Your task to perform on an android device: Show me the alarms in the clock app Image 0: 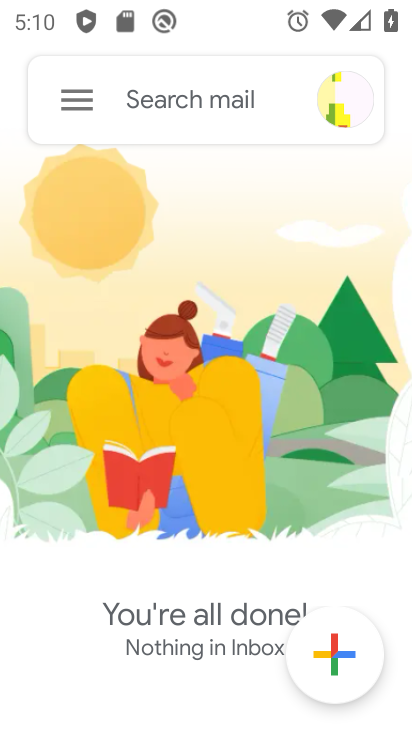
Step 0: press home button
Your task to perform on an android device: Show me the alarms in the clock app Image 1: 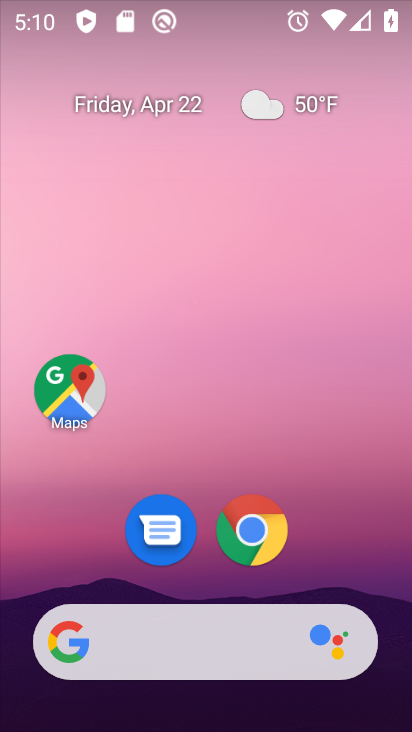
Step 1: drag from (290, 560) to (312, 178)
Your task to perform on an android device: Show me the alarms in the clock app Image 2: 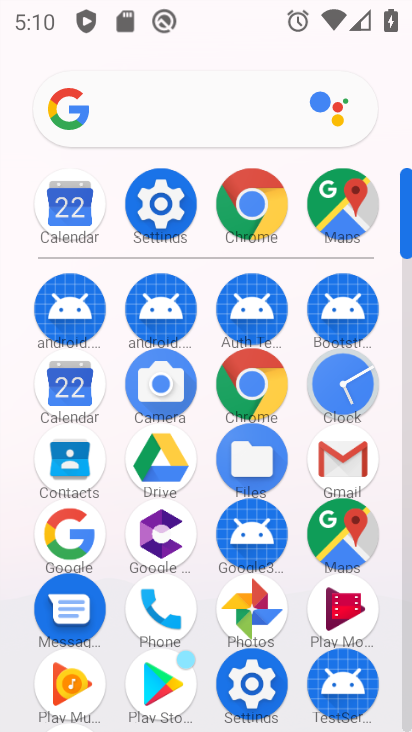
Step 2: click (331, 249)
Your task to perform on an android device: Show me the alarms in the clock app Image 3: 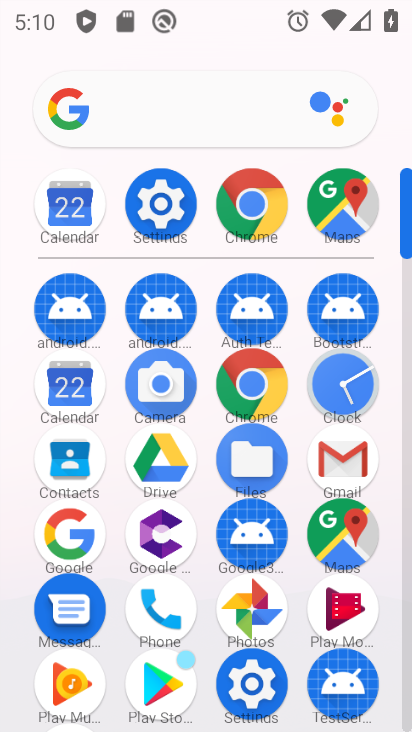
Step 3: click (349, 377)
Your task to perform on an android device: Show me the alarms in the clock app Image 4: 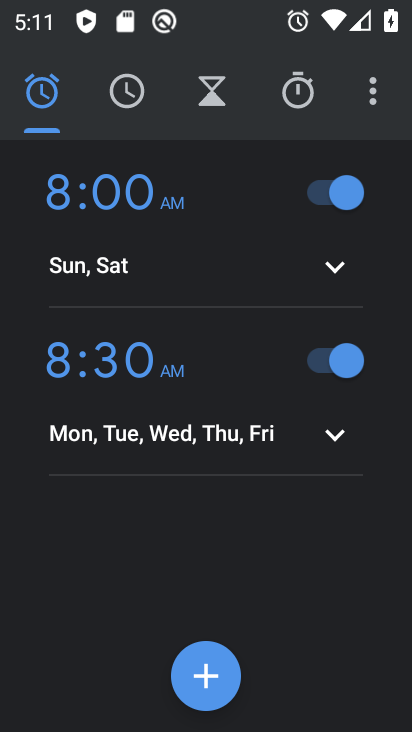
Step 4: click (36, 88)
Your task to perform on an android device: Show me the alarms in the clock app Image 5: 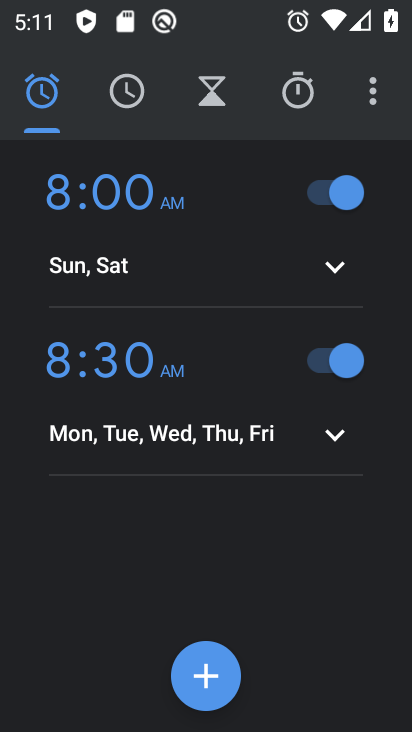
Step 5: task complete